Your task to perform on an android device: change notification settings in the gmail app Image 0: 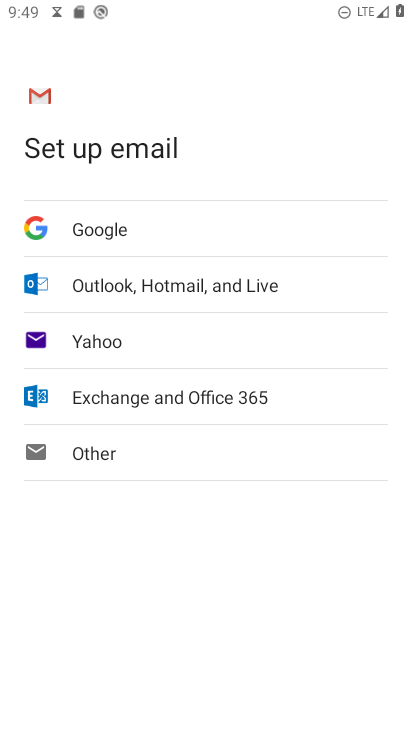
Step 0: press home button
Your task to perform on an android device: change notification settings in the gmail app Image 1: 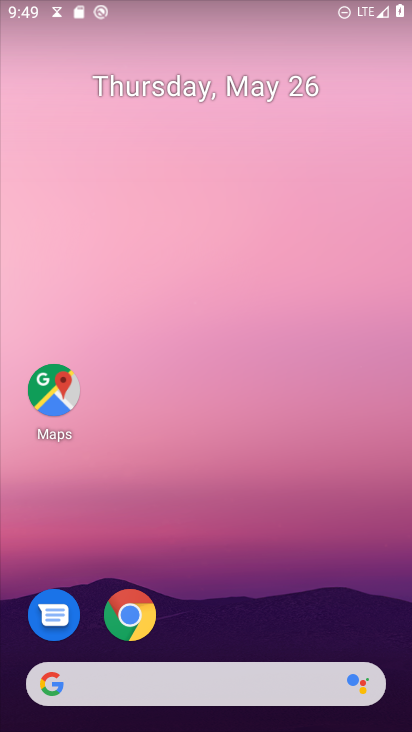
Step 1: drag from (245, 620) to (237, 266)
Your task to perform on an android device: change notification settings in the gmail app Image 2: 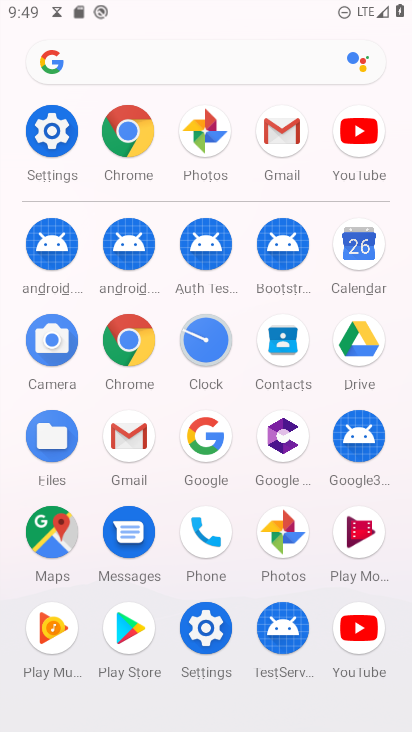
Step 2: click (273, 133)
Your task to perform on an android device: change notification settings in the gmail app Image 3: 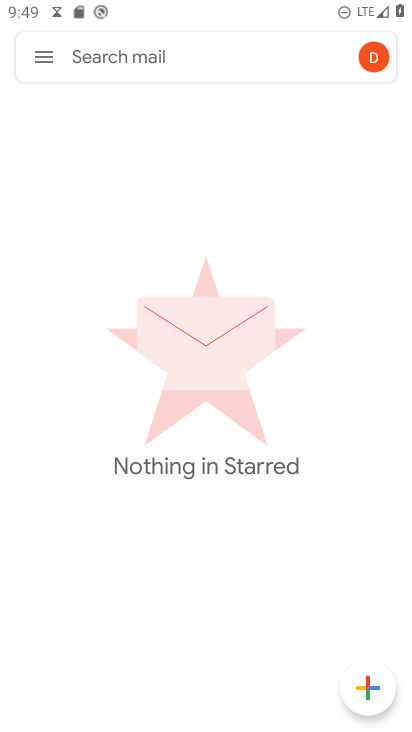
Step 3: click (40, 51)
Your task to perform on an android device: change notification settings in the gmail app Image 4: 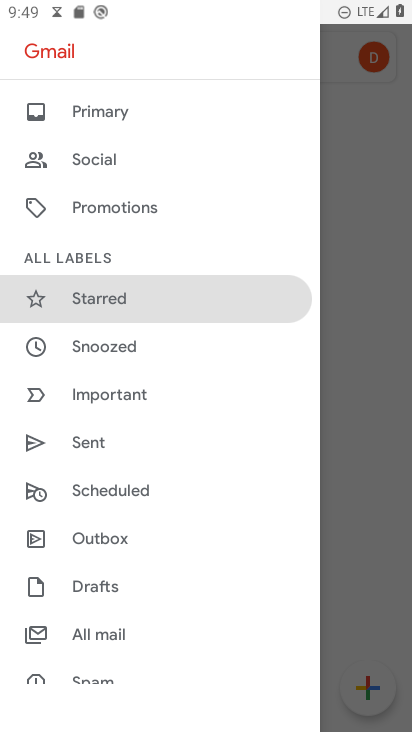
Step 4: drag from (145, 598) to (195, 660)
Your task to perform on an android device: change notification settings in the gmail app Image 5: 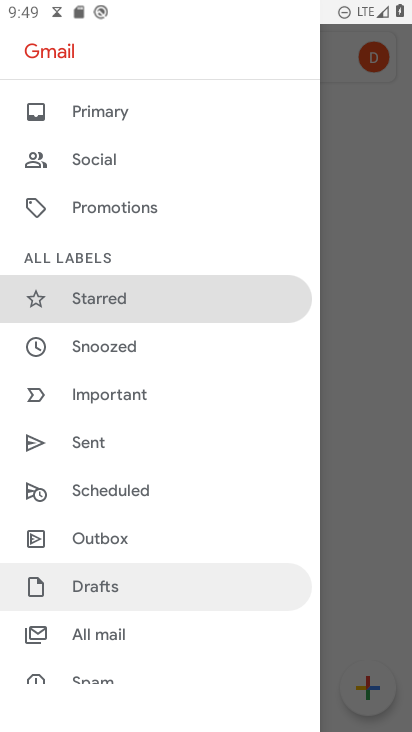
Step 5: drag from (184, 641) to (176, 247)
Your task to perform on an android device: change notification settings in the gmail app Image 6: 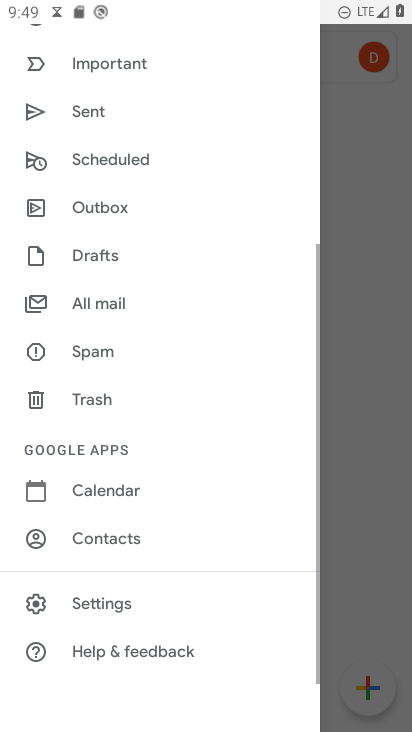
Step 6: drag from (124, 448) to (160, 205)
Your task to perform on an android device: change notification settings in the gmail app Image 7: 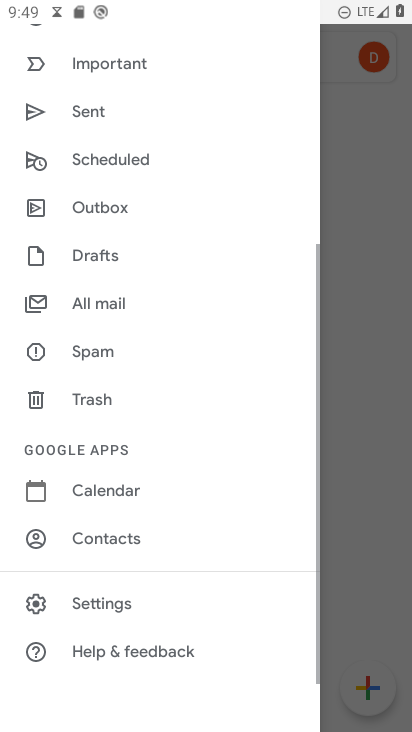
Step 7: drag from (128, 484) to (186, 145)
Your task to perform on an android device: change notification settings in the gmail app Image 8: 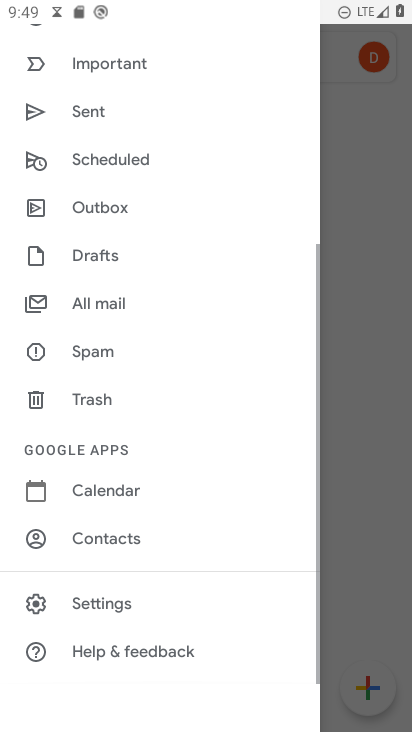
Step 8: click (106, 601)
Your task to perform on an android device: change notification settings in the gmail app Image 9: 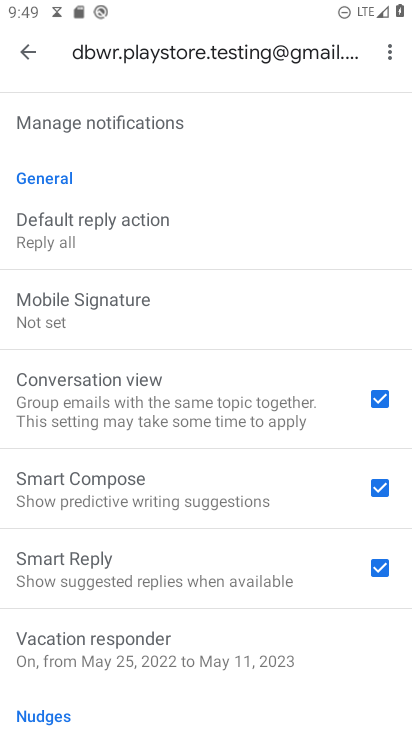
Step 9: drag from (121, 179) to (144, 540)
Your task to perform on an android device: change notification settings in the gmail app Image 10: 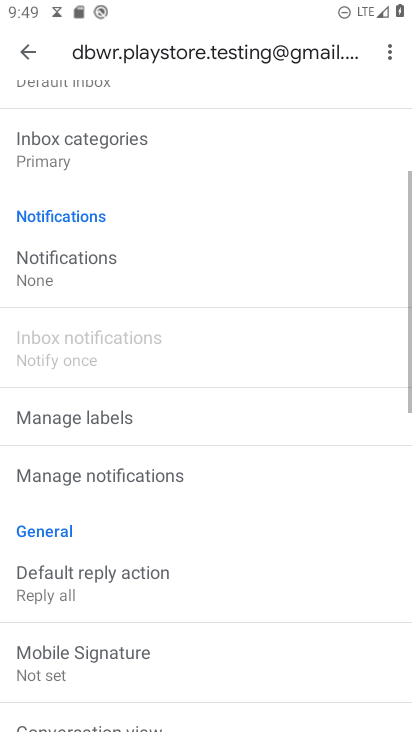
Step 10: drag from (104, 224) to (119, 563)
Your task to perform on an android device: change notification settings in the gmail app Image 11: 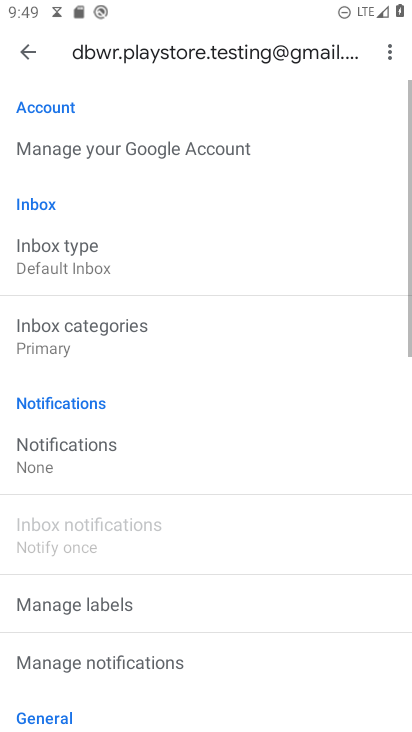
Step 11: drag from (112, 244) to (111, 485)
Your task to perform on an android device: change notification settings in the gmail app Image 12: 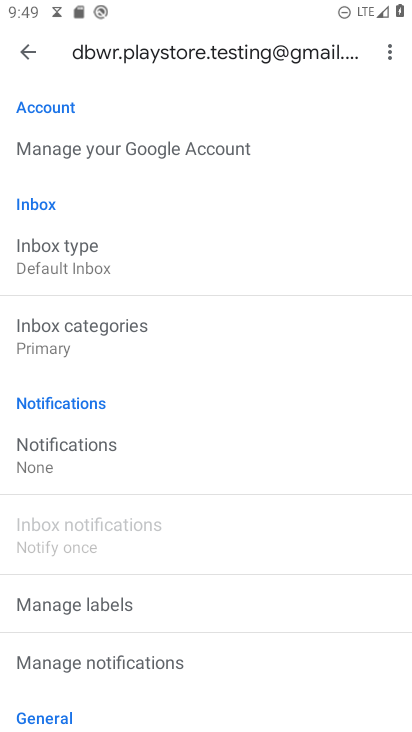
Step 12: click (88, 469)
Your task to perform on an android device: change notification settings in the gmail app Image 13: 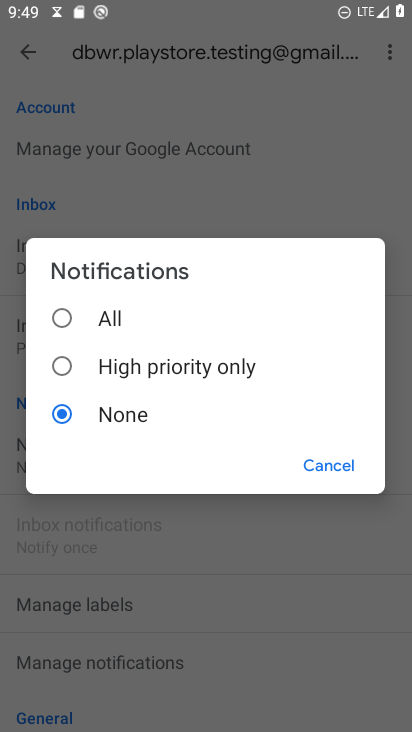
Step 13: click (103, 317)
Your task to perform on an android device: change notification settings in the gmail app Image 14: 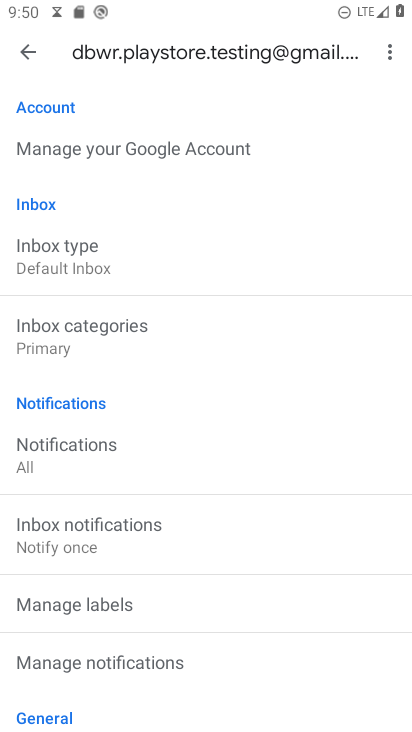
Step 14: task complete